Your task to perform on an android device: Is it going to rain today? Image 0: 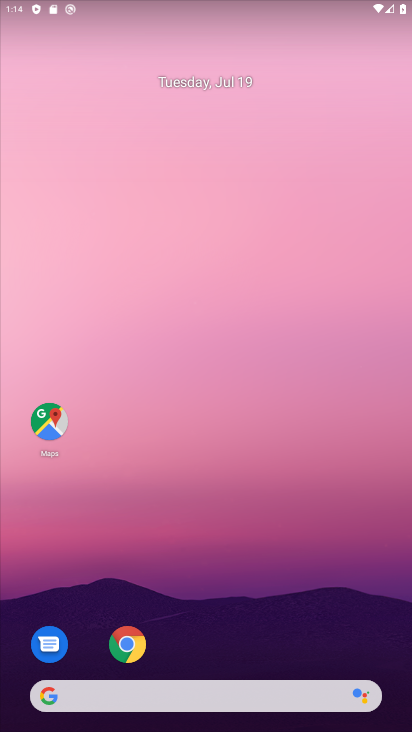
Step 0: drag from (13, 226) to (367, 208)
Your task to perform on an android device: Is it going to rain today? Image 1: 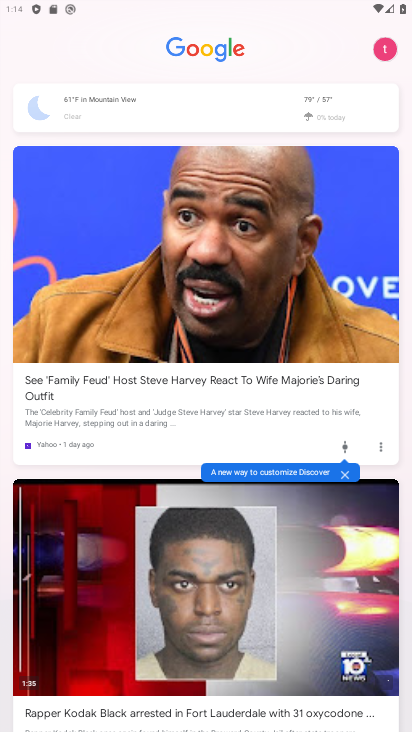
Step 1: click (321, 99)
Your task to perform on an android device: Is it going to rain today? Image 2: 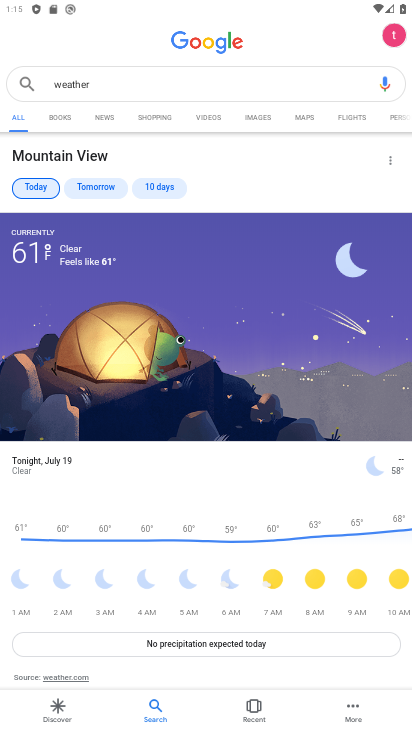
Step 2: task complete